Your task to perform on an android device: See recent photos Image 0: 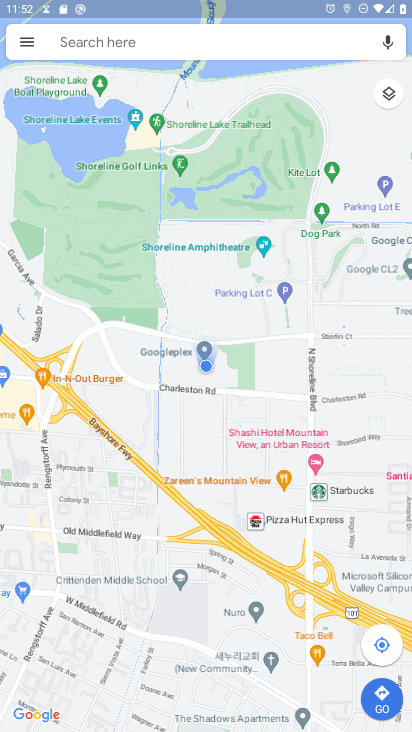
Step 0: press back button
Your task to perform on an android device: See recent photos Image 1: 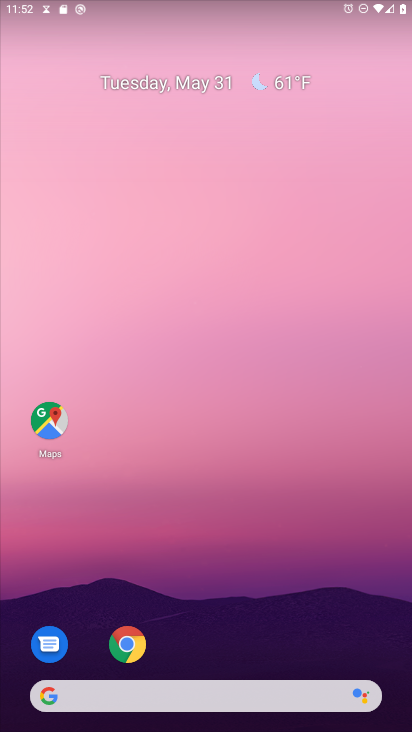
Step 1: drag from (266, 638) to (272, 59)
Your task to perform on an android device: See recent photos Image 2: 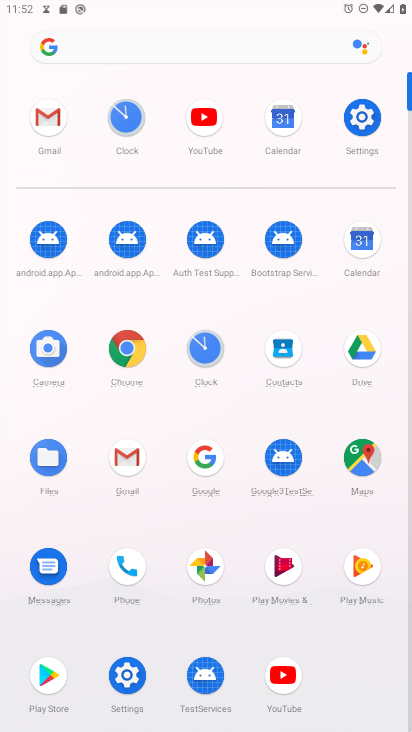
Step 2: click (206, 546)
Your task to perform on an android device: See recent photos Image 3: 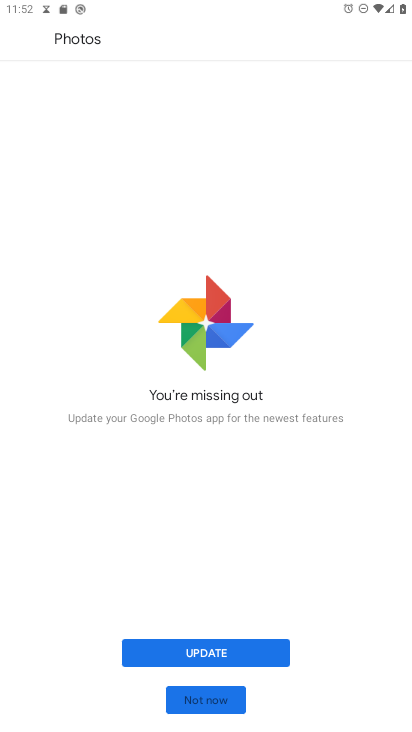
Step 3: click (208, 700)
Your task to perform on an android device: See recent photos Image 4: 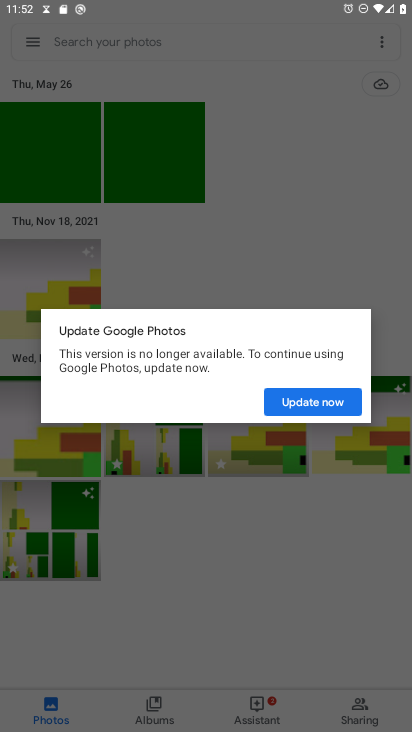
Step 4: click (316, 404)
Your task to perform on an android device: See recent photos Image 5: 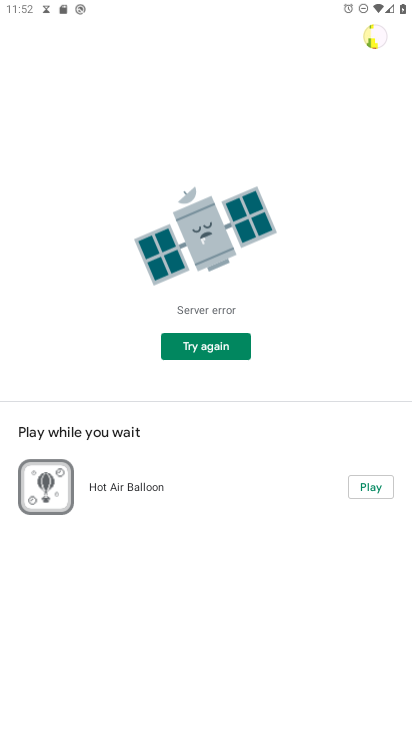
Step 5: press back button
Your task to perform on an android device: See recent photos Image 6: 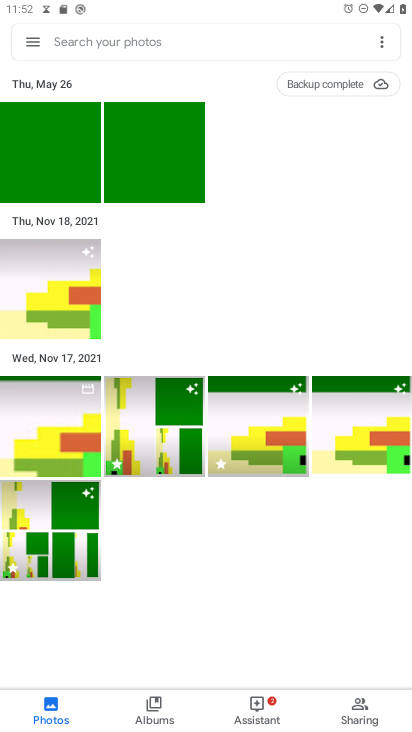
Step 6: click (49, 703)
Your task to perform on an android device: See recent photos Image 7: 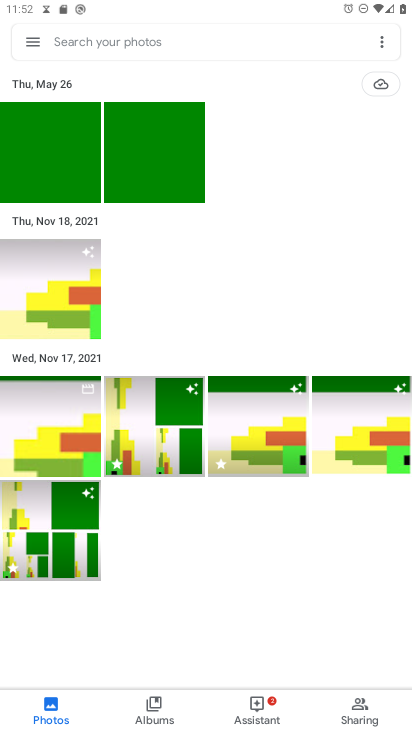
Step 7: task complete